Your task to perform on an android device: See recent photos Image 0: 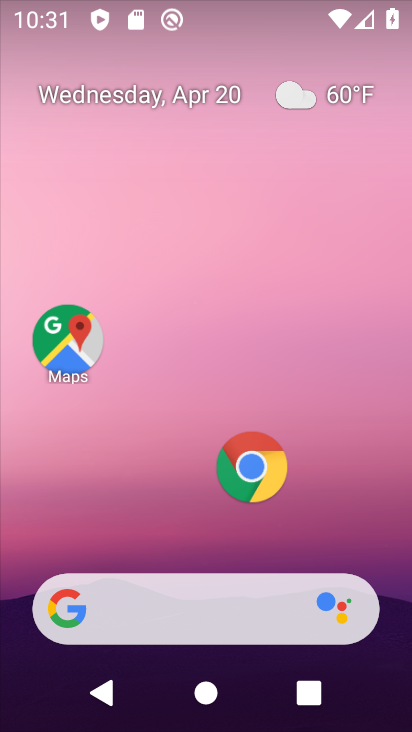
Step 0: drag from (312, 542) to (273, 147)
Your task to perform on an android device: See recent photos Image 1: 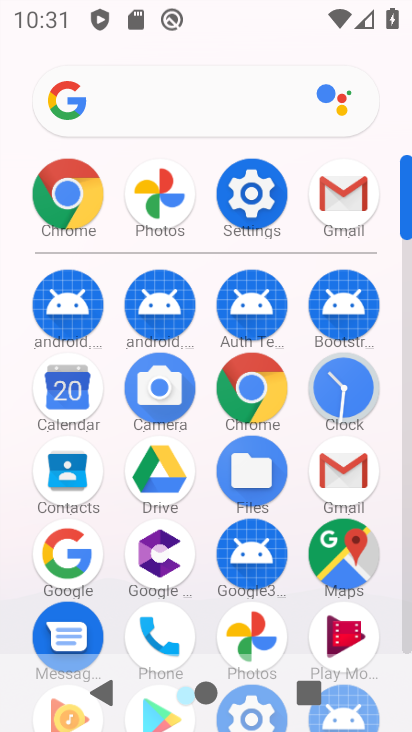
Step 1: click (158, 203)
Your task to perform on an android device: See recent photos Image 2: 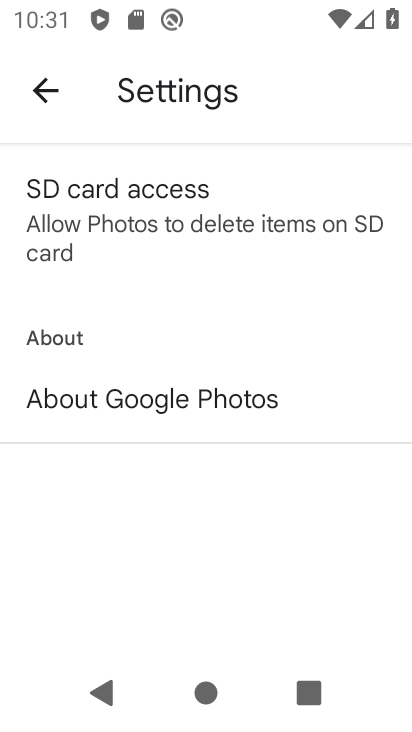
Step 2: click (60, 103)
Your task to perform on an android device: See recent photos Image 3: 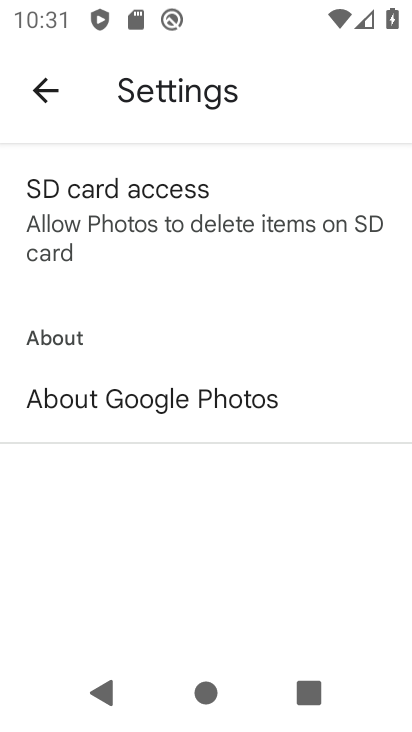
Step 3: click (62, 102)
Your task to perform on an android device: See recent photos Image 4: 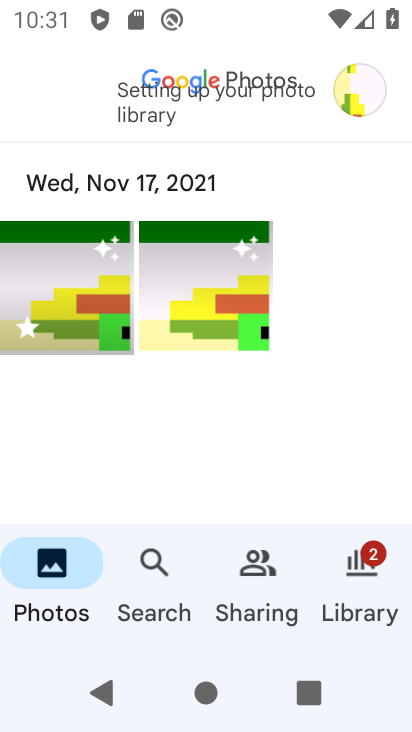
Step 4: task complete